Your task to perform on an android device: Open eBay Image 0: 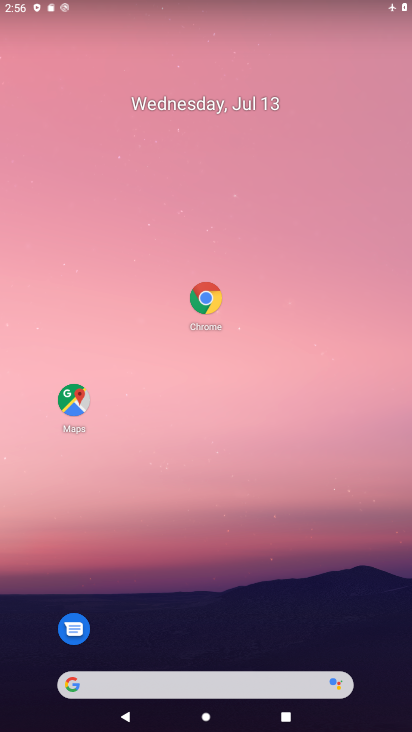
Step 0: click (207, 289)
Your task to perform on an android device: Open eBay Image 1: 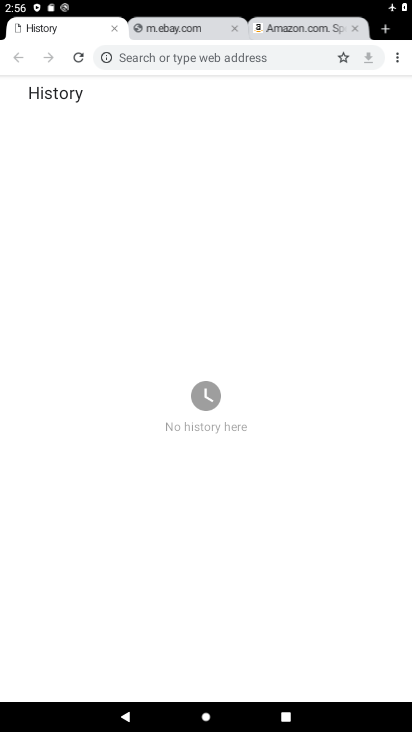
Step 1: click (388, 32)
Your task to perform on an android device: Open eBay Image 2: 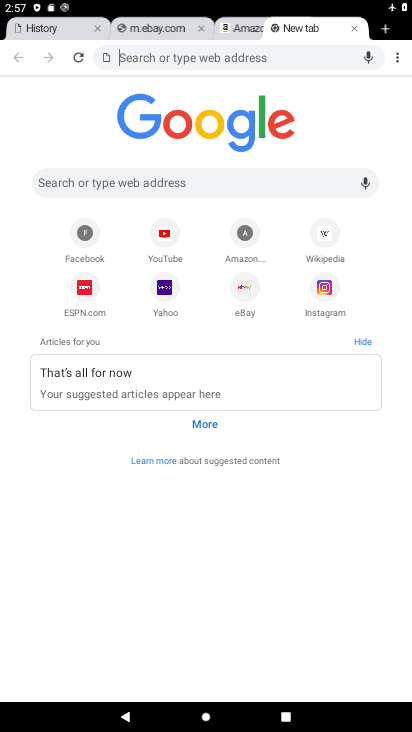
Step 2: click (237, 280)
Your task to perform on an android device: Open eBay Image 3: 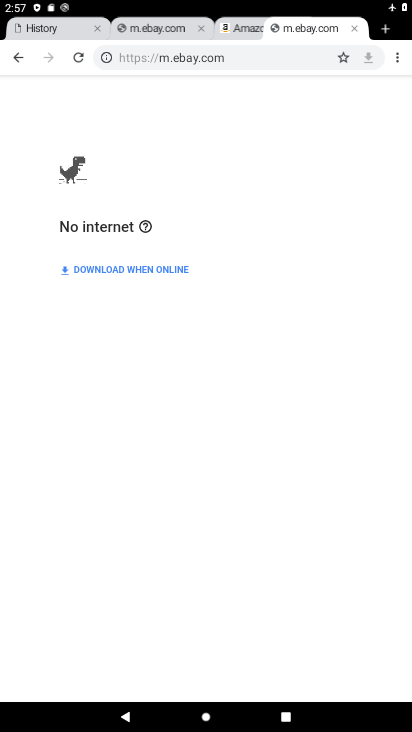
Step 3: task complete